Your task to perform on an android device: turn on sleep mode Image 0: 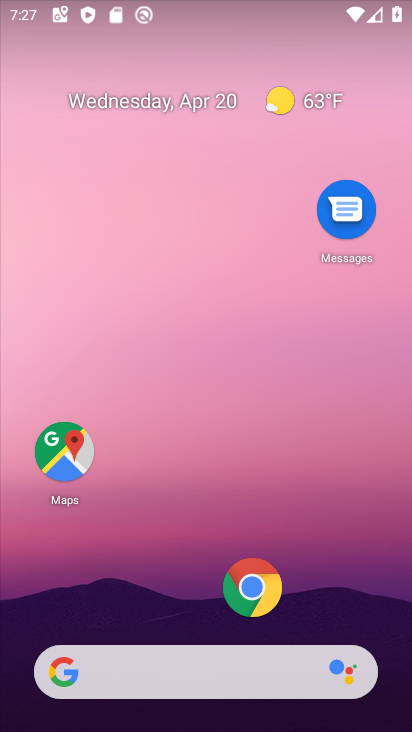
Step 0: drag from (139, 674) to (250, 163)
Your task to perform on an android device: turn on sleep mode Image 1: 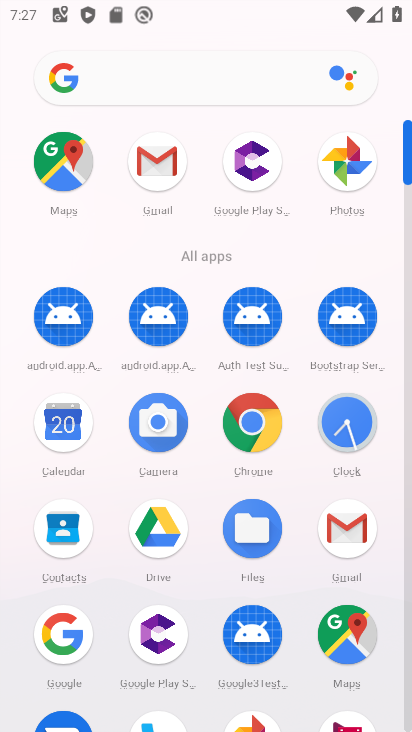
Step 1: drag from (205, 627) to (311, 224)
Your task to perform on an android device: turn on sleep mode Image 2: 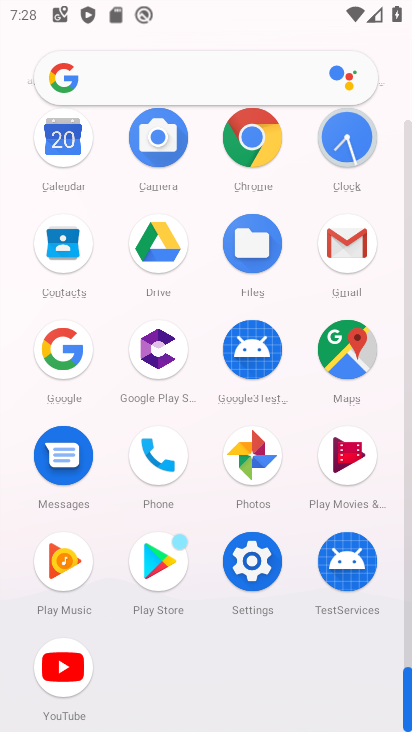
Step 2: click (255, 569)
Your task to perform on an android device: turn on sleep mode Image 3: 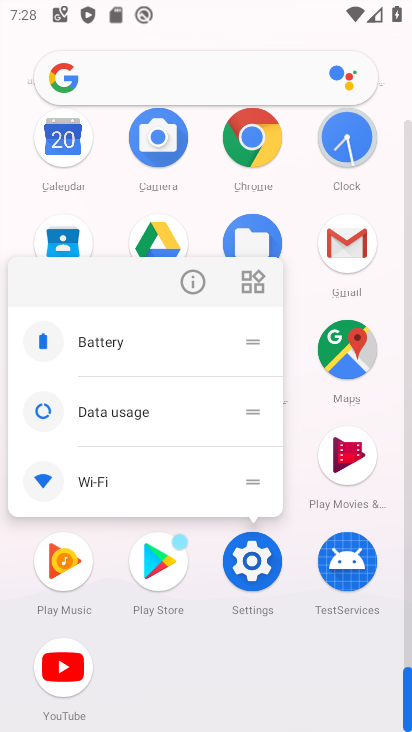
Step 3: click (249, 567)
Your task to perform on an android device: turn on sleep mode Image 4: 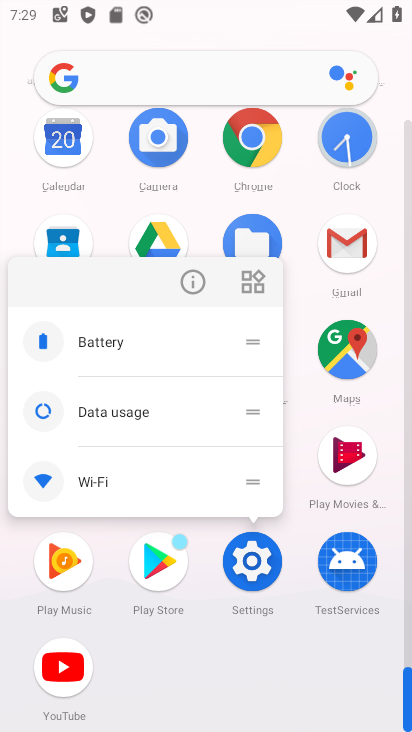
Step 4: click (259, 572)
Your task to perform on an android device: turn on sleep mode Image 5: 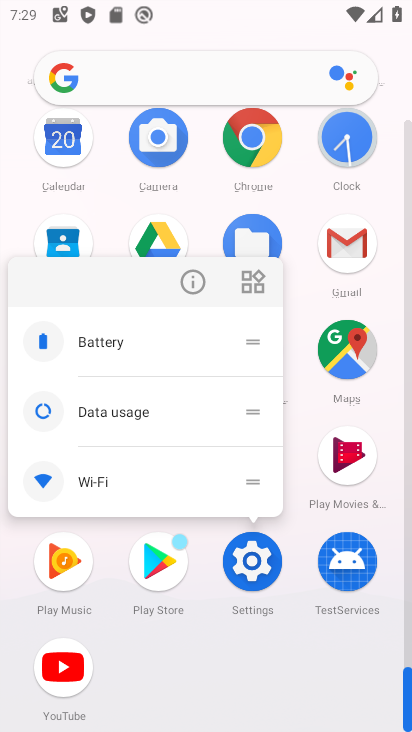
Step 5: click (257, 566)
Your task to perform on an android device: turn on sleep mode Image 6: 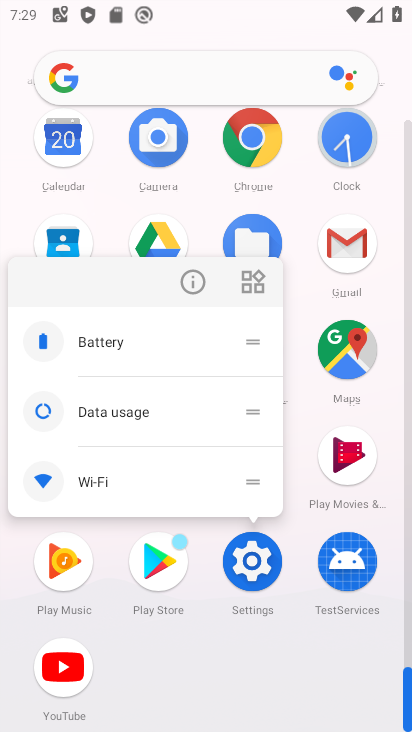
Step 6: click (249, 565)
Your task to perform on an android device: turn on sleep mode Image 7: 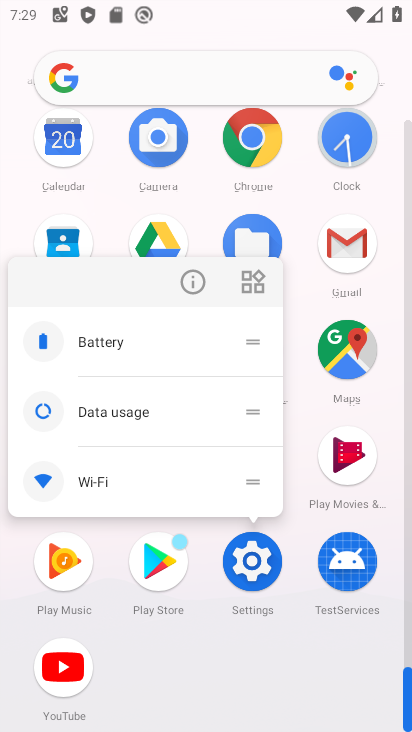
Step 7: click (252, 559)
Your task to perform on an android device: turn on sleep mode Image 8: 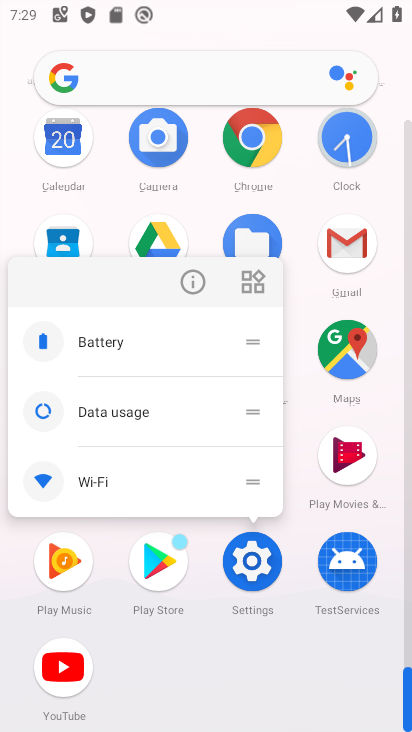
Step 8: click (243, 560)
Your task to perform on an android device: turn on sleep mode Image 9: 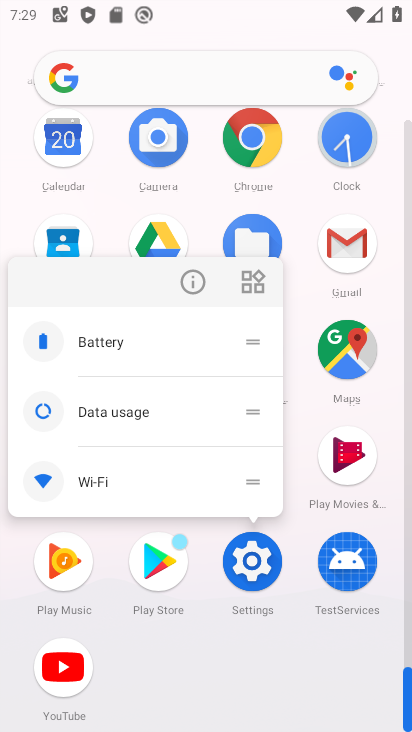
Step 9: click (252, 568)
Your task to perform on an android device: turn on sleep mode Image 10: 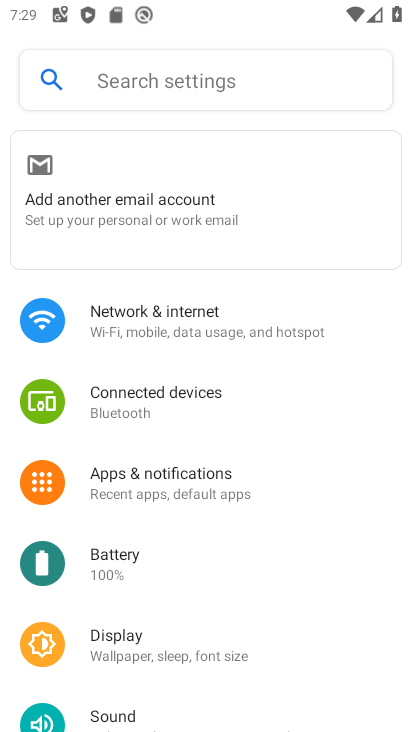
Step 10: drag from (232, 587) to (353, 351)
Your task to perform on an android device: turn on sleep mode Image 11: 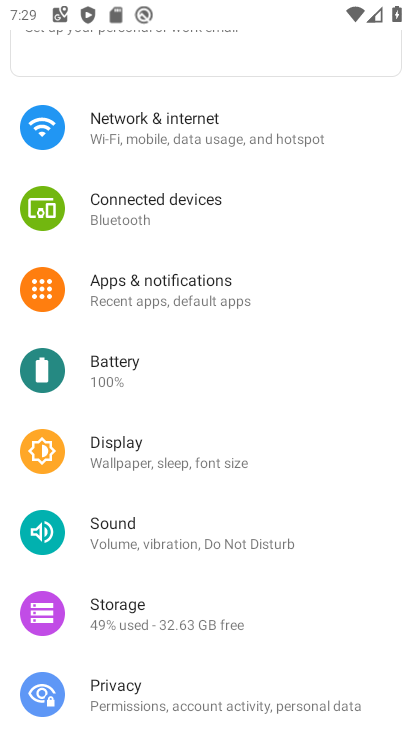
Step 11: click (127, 447)
Your task to perform on an android device: turn on sleep mode Image 12: 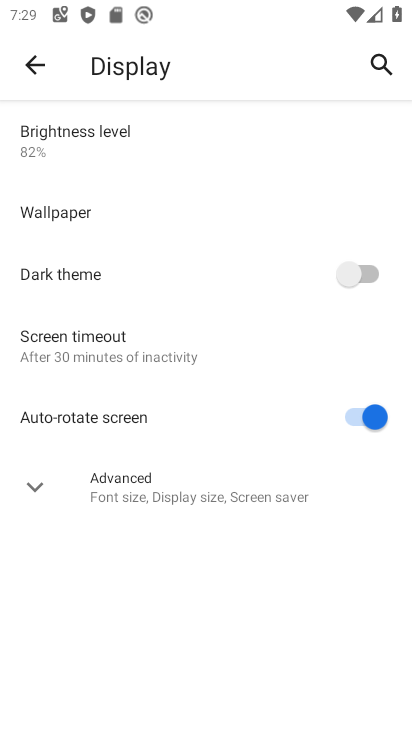
Step 12: task complete